Your task to perform on an android device: delete location history Image 0: 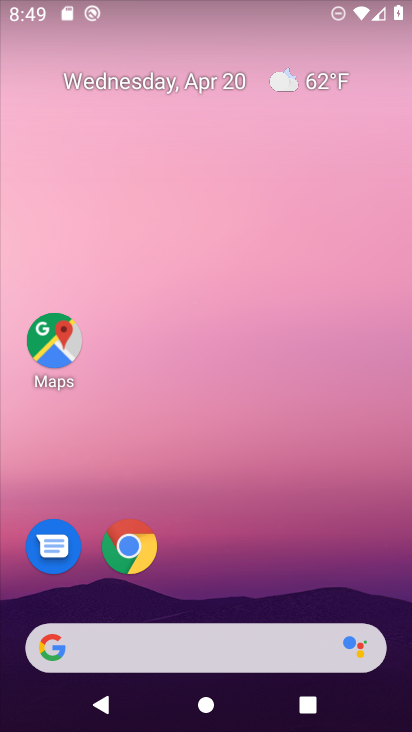
Step 0: click (51, 344)
Your task to perform on an android device: delete location history Image 1: 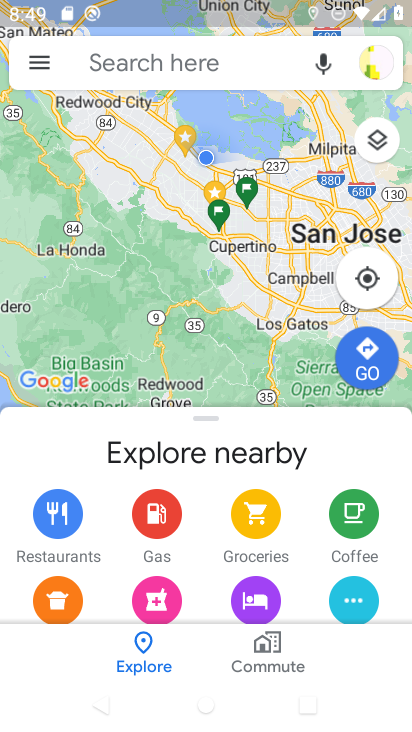
Step 1: click (43, 53)
Your task to perform on an android device: delete location history Image 2: 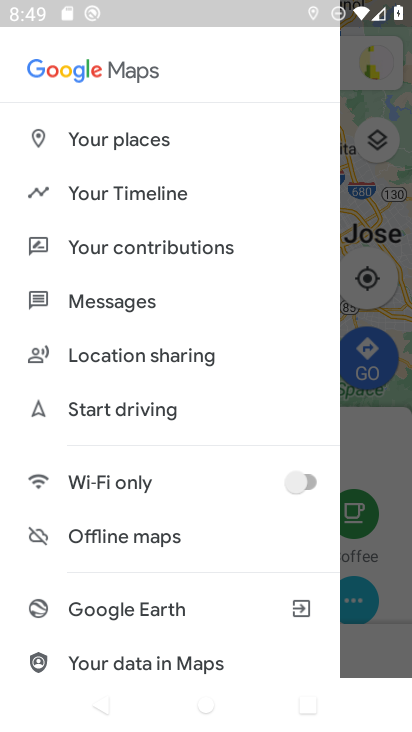
Step 2: click (105, 182)
Your task to perform on an android device: delete location history Image 3: 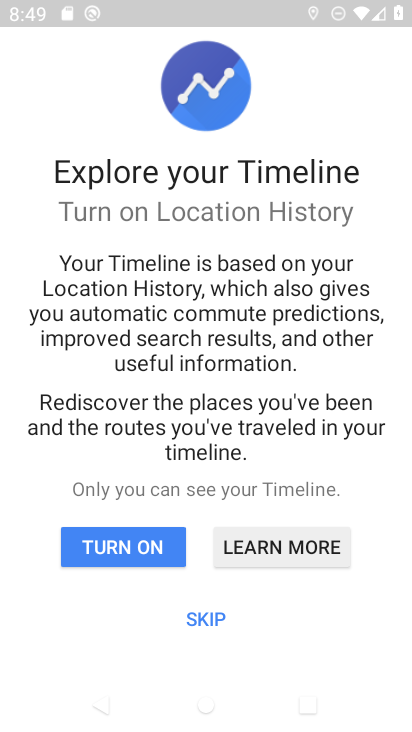
Step 3: click (208, 614)
Your task to perform on an android device: delete location history Image 4: 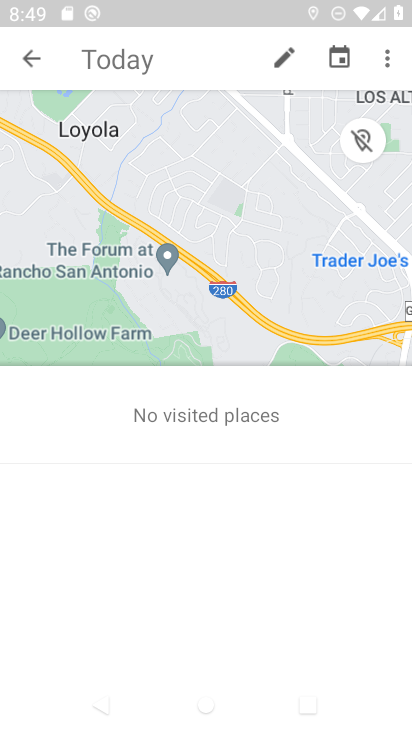
Step 4: click (385, 54)
Your task to perform on an android device: delete location history Image 5: 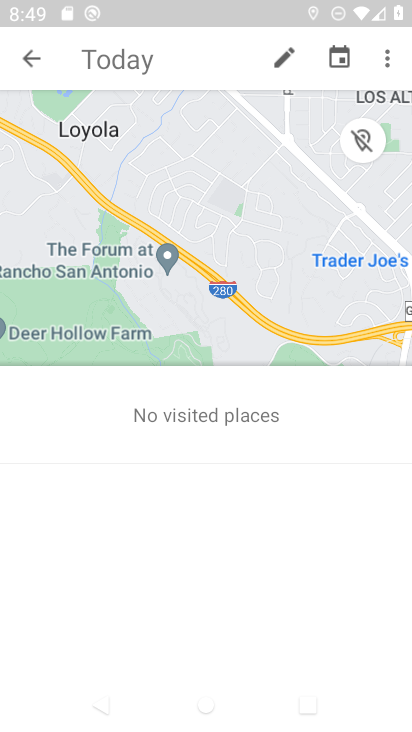
Step 5: click (385, 56)
Your task to perform on an android device: delete location history Image 6: 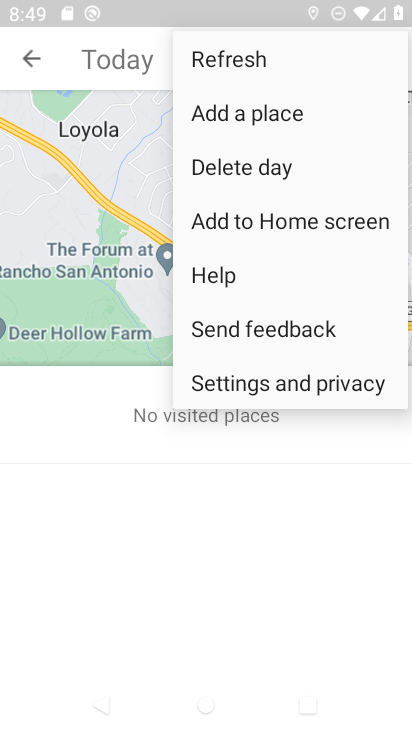
Step 6: click (318, 373)
Your task to perform on an android device: delete location history Image 7: 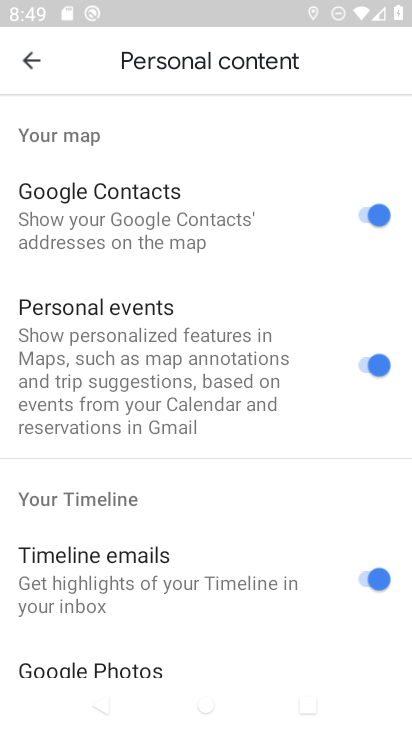
Step 7: drag from (215, 601) to (219, 138)
Your task to perform on an android device: delete location history Image 8: 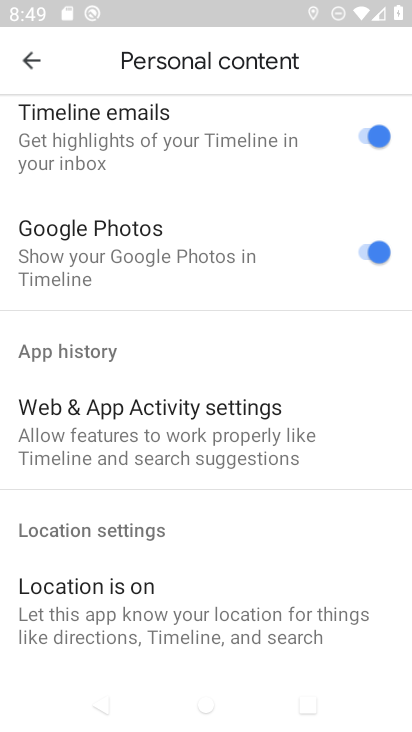
Step 8: drag from (235, 556) to (222, 136)
Your task to perform on an android device: delete location history Image 9: 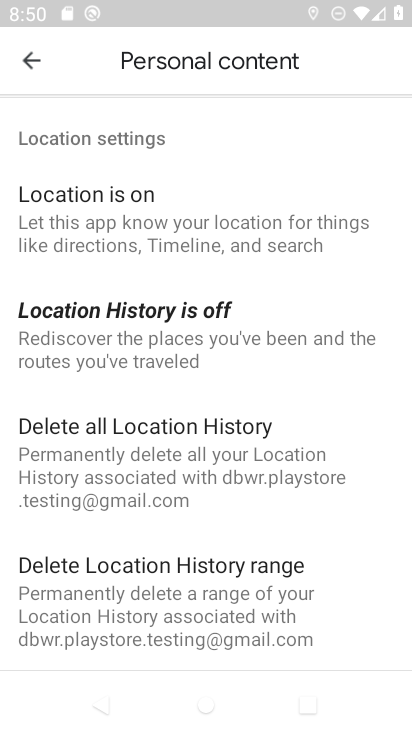
Step 9: click (205, 467)
Your task to perform on an android device: delete location history Image 10: 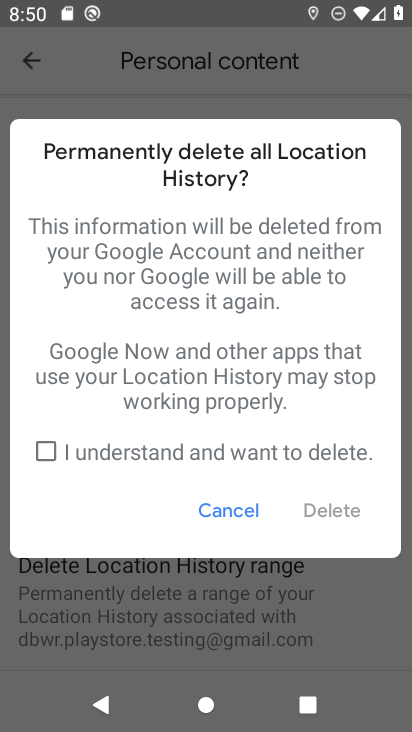
Step 10: click (39, 449)
Your task to perform on an android device: delete location history Image 11: 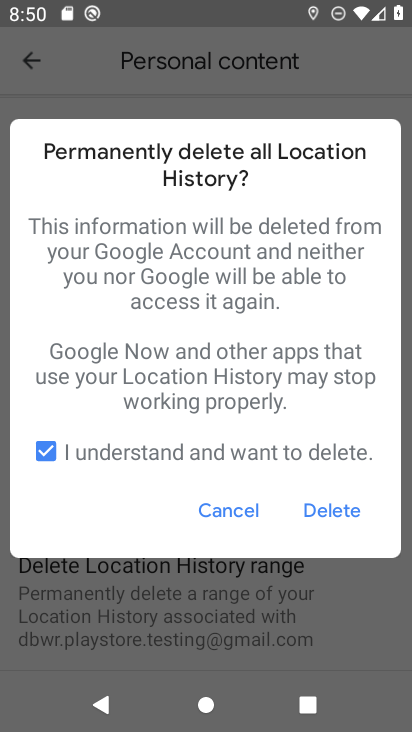
Step 11: click (330, 505)
Your task to perform on an android device: delete location history Image 12: 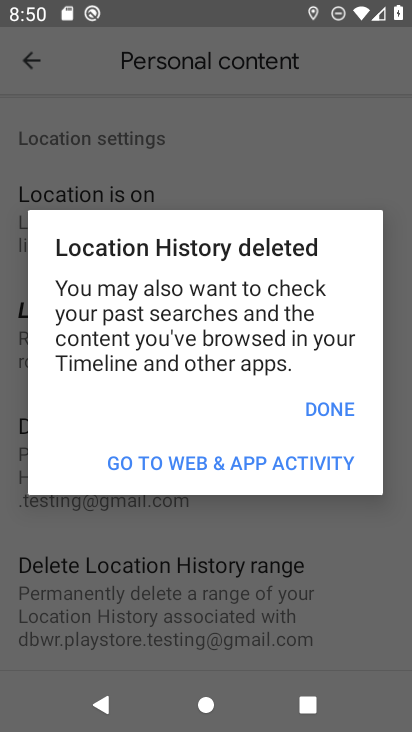
Step 12: click (333, 394)
Your task to perform on an android device: delete location history Image 13: 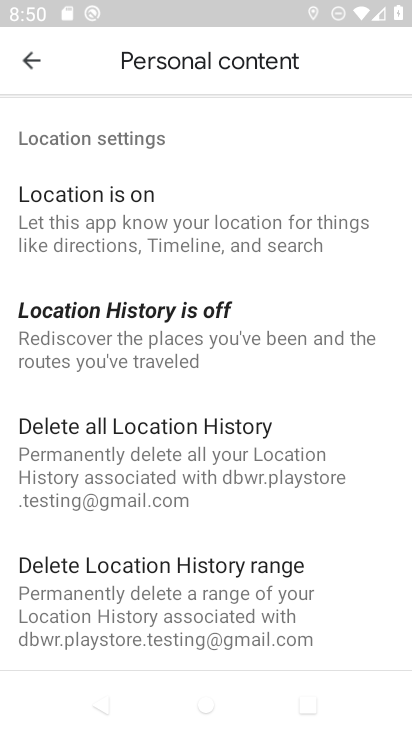
Step 13: task complete